Your task to perform on an android device: Add macbook pro 13 inch to the cart on newegg.com Image 0: 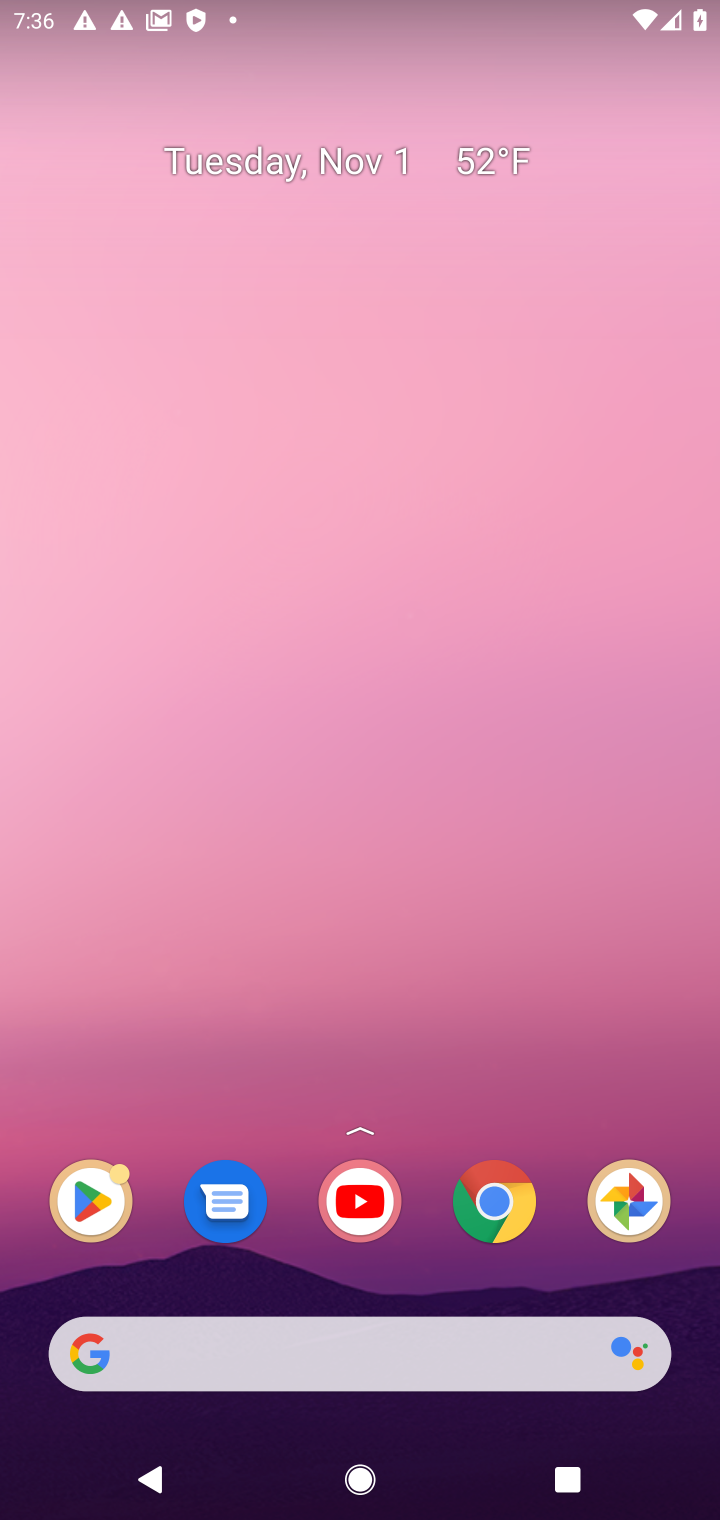
Step 0: click (348, 1363)
Your task to perform on an android device: Add macbook pro 13 inch to the cart on newegg.com Image 1: 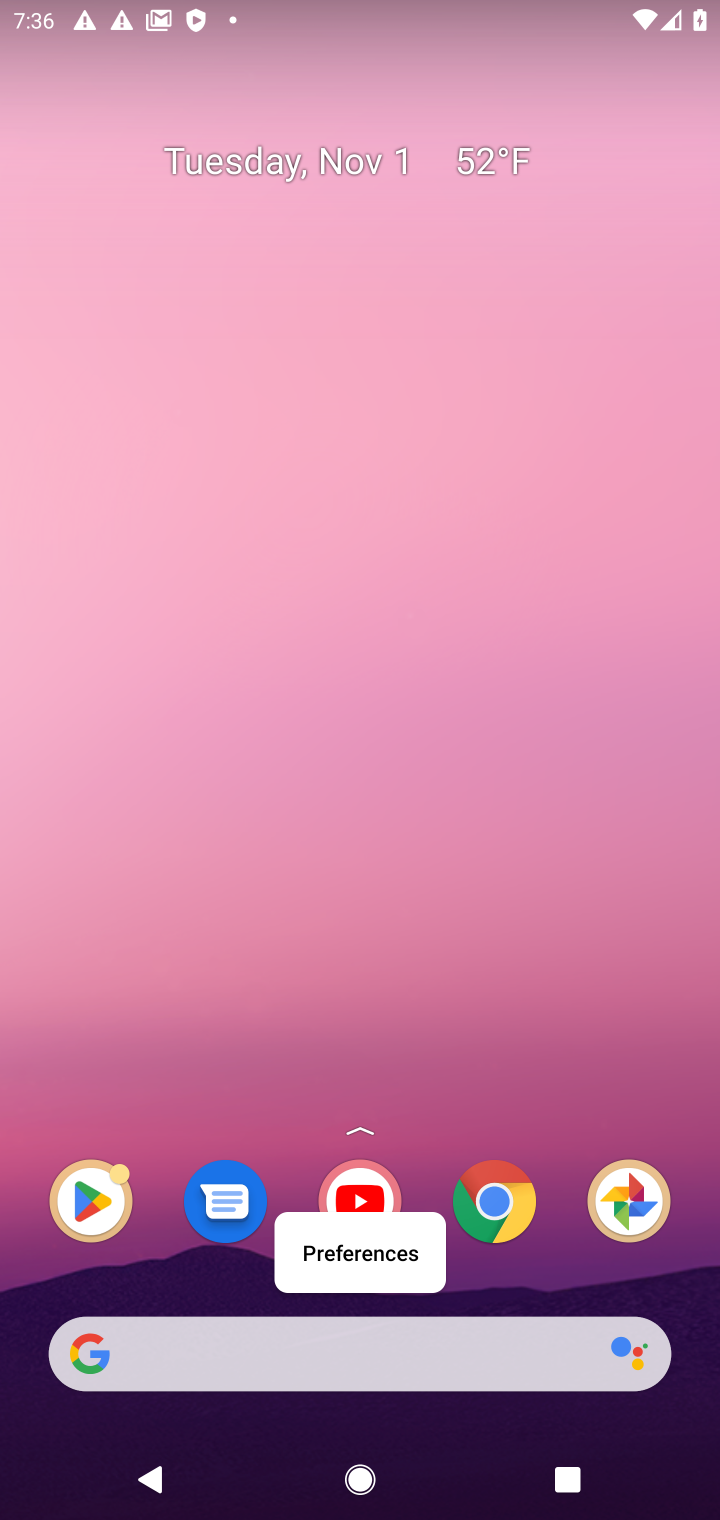
Step 1: click (498, 1233)
Your task to perform on an android device: Add macbook pro 13 inch to the cart on newegg.com Image 2: 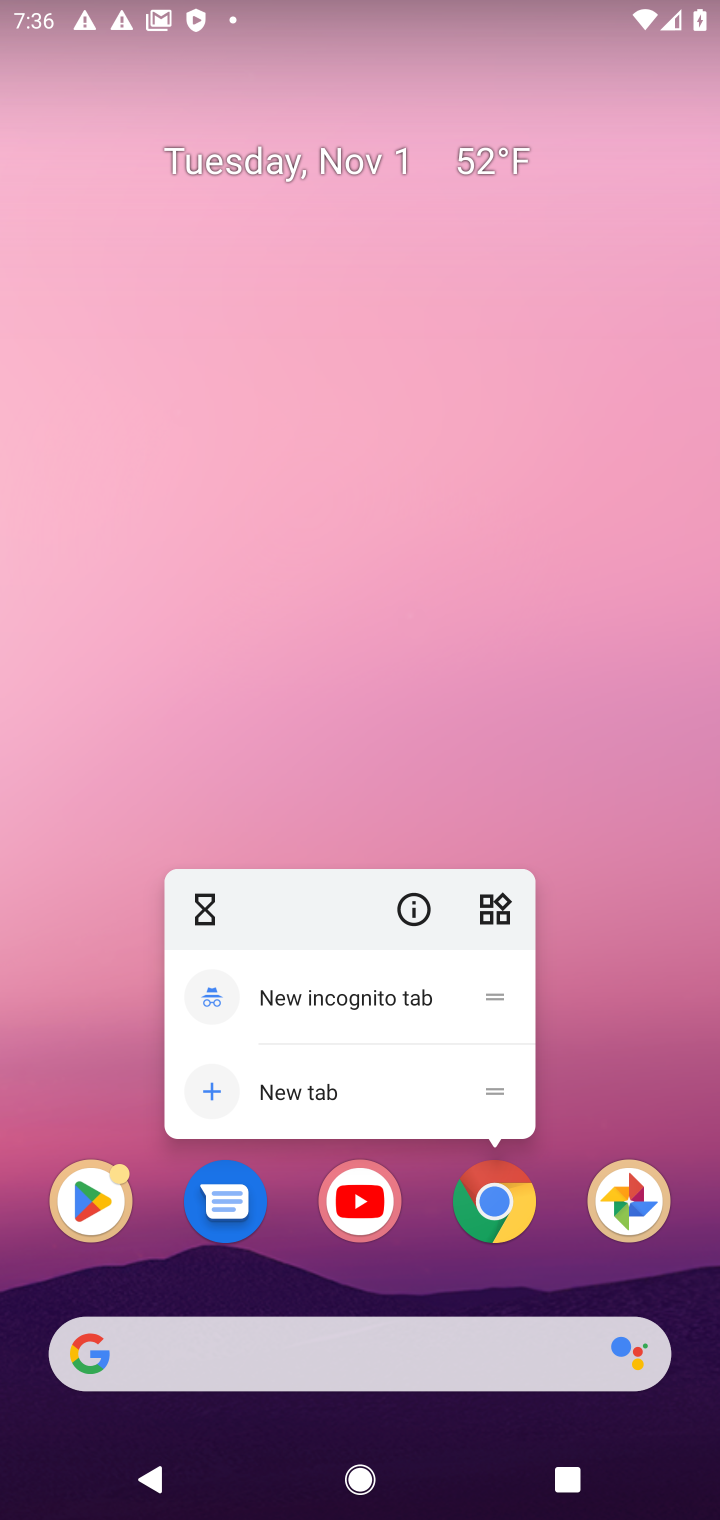
Step 2: click (474, 1187)
Your task to perform on an android device: Add macbook pro 13 inch to the cart on newegg.com Image 3: 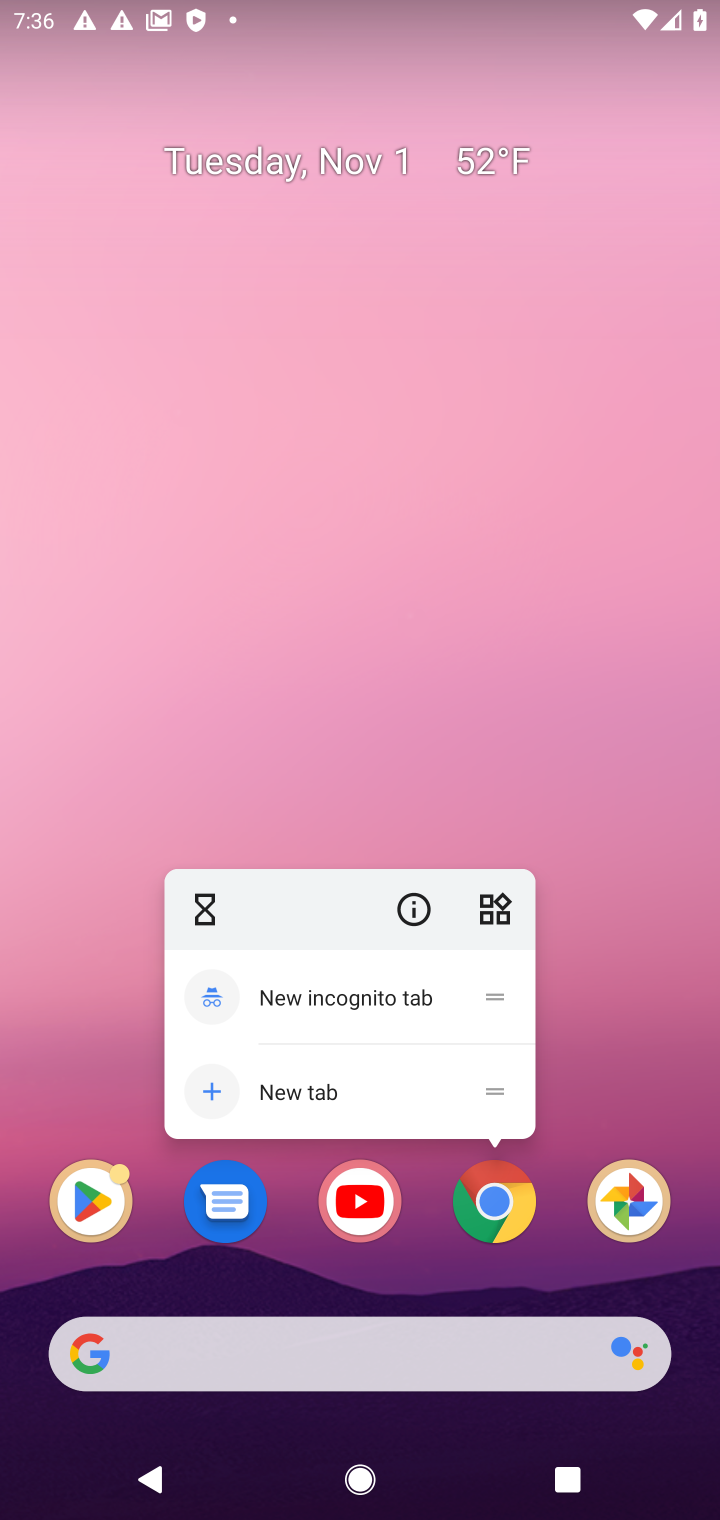
Step 3: click (477, 1194)
Your task to perform on an android device: Add macbook pro 13 inch to the cart on newegg.com Image 4: 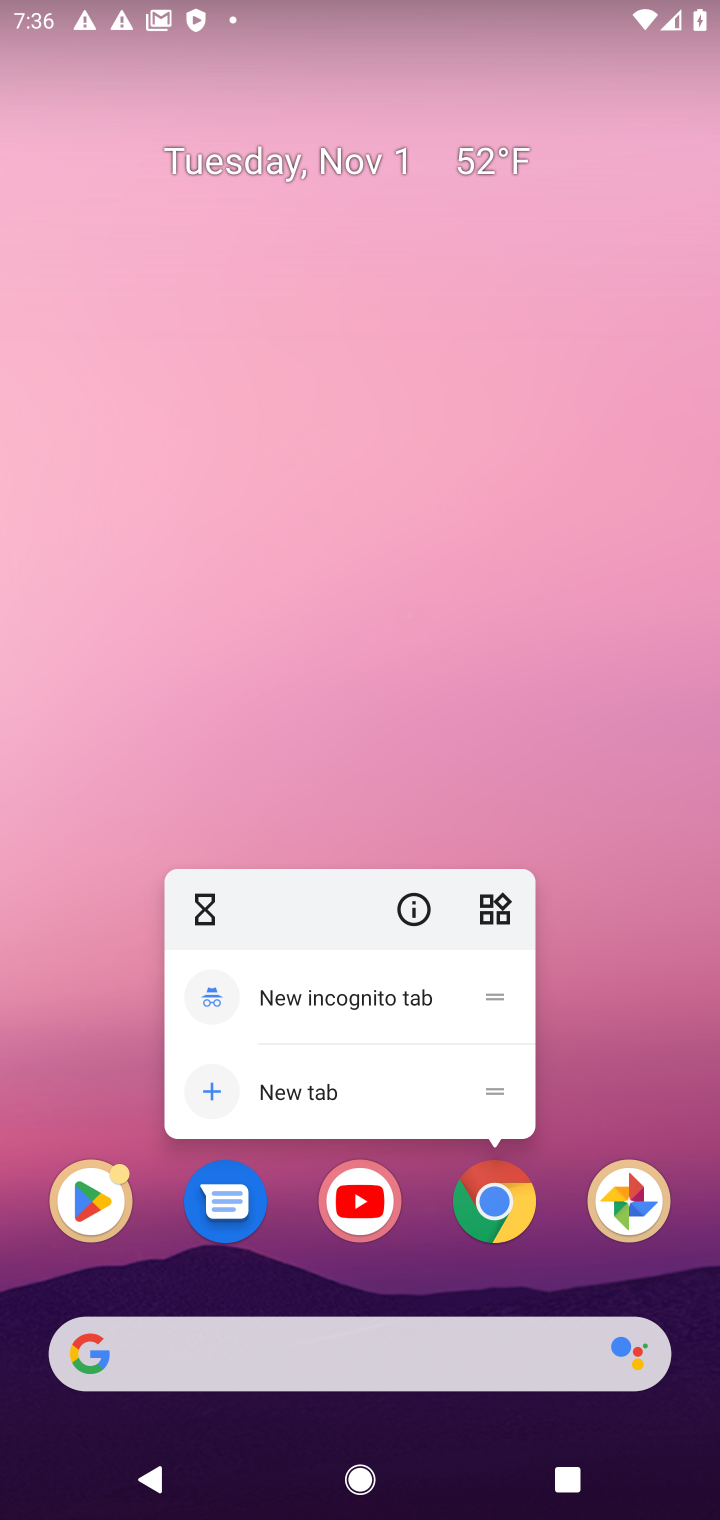
Step 4: click (399, 619)
Your task to perform on an android device: Add macbook pro 13 inch to the cart on newegg.com Image 5: 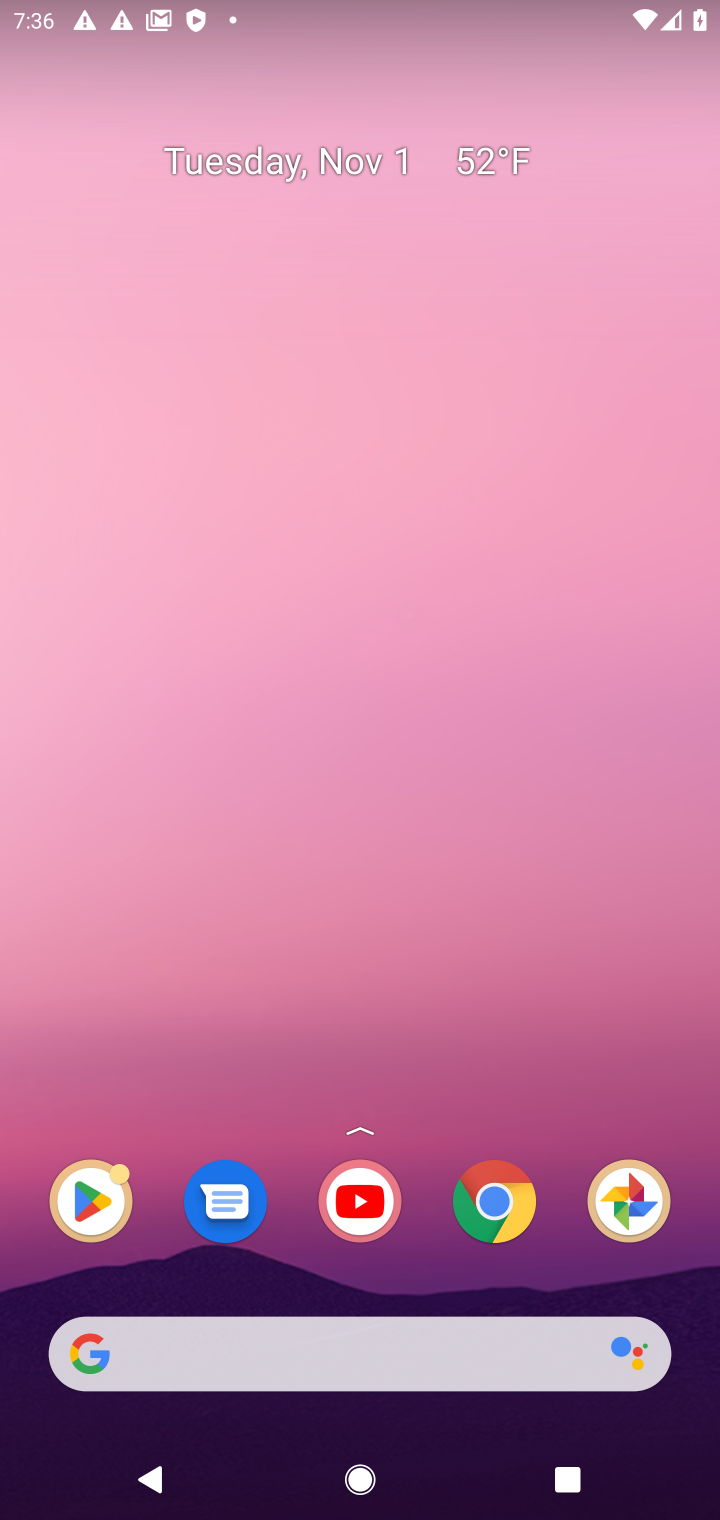
Step 5: click (504, 1206)
Your task to perform on an android device: Add macbook pro 13 inch to the cart on newegg.com Image 6: 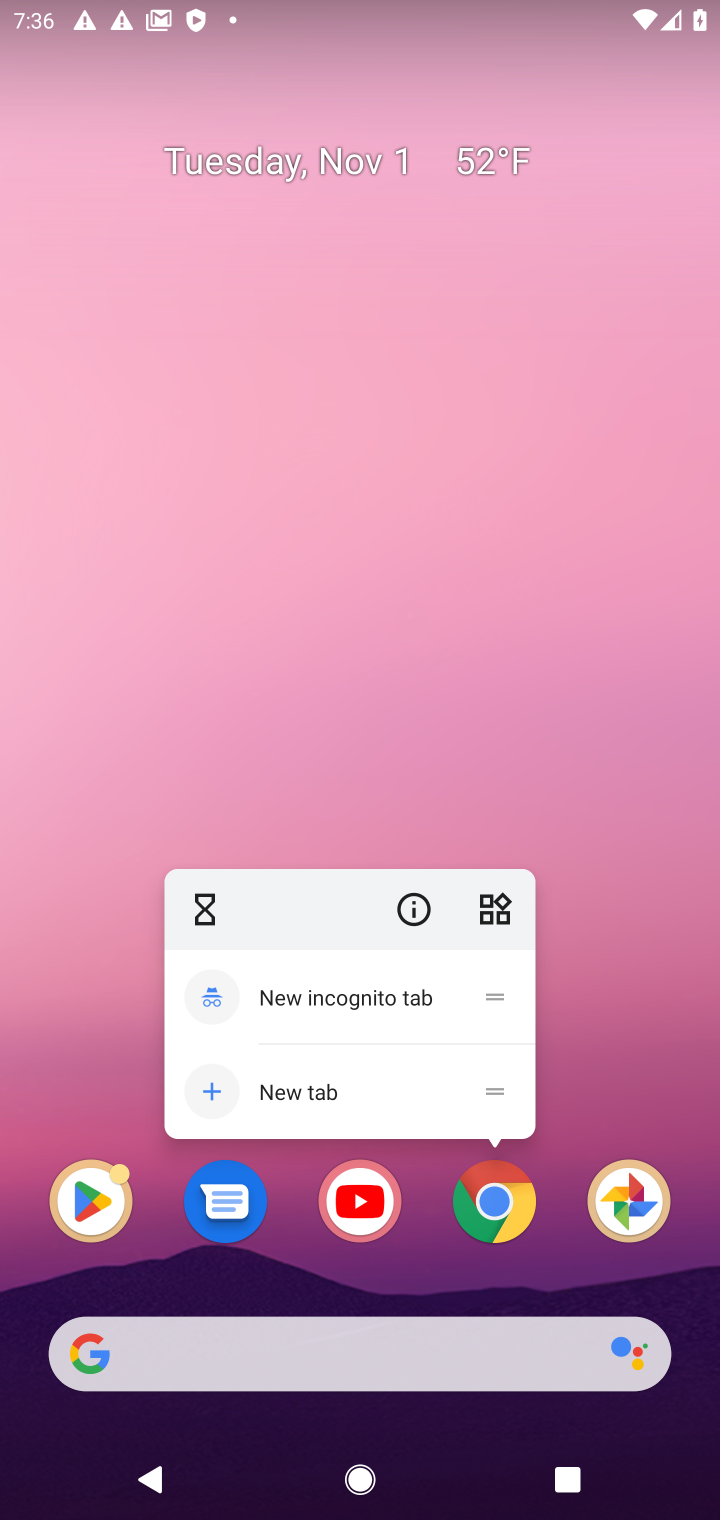
Step 6: click (495, 1188)
Your task to perform on an android device: Add macbook pro 13 inch to the cart on newegg.com Image 7: 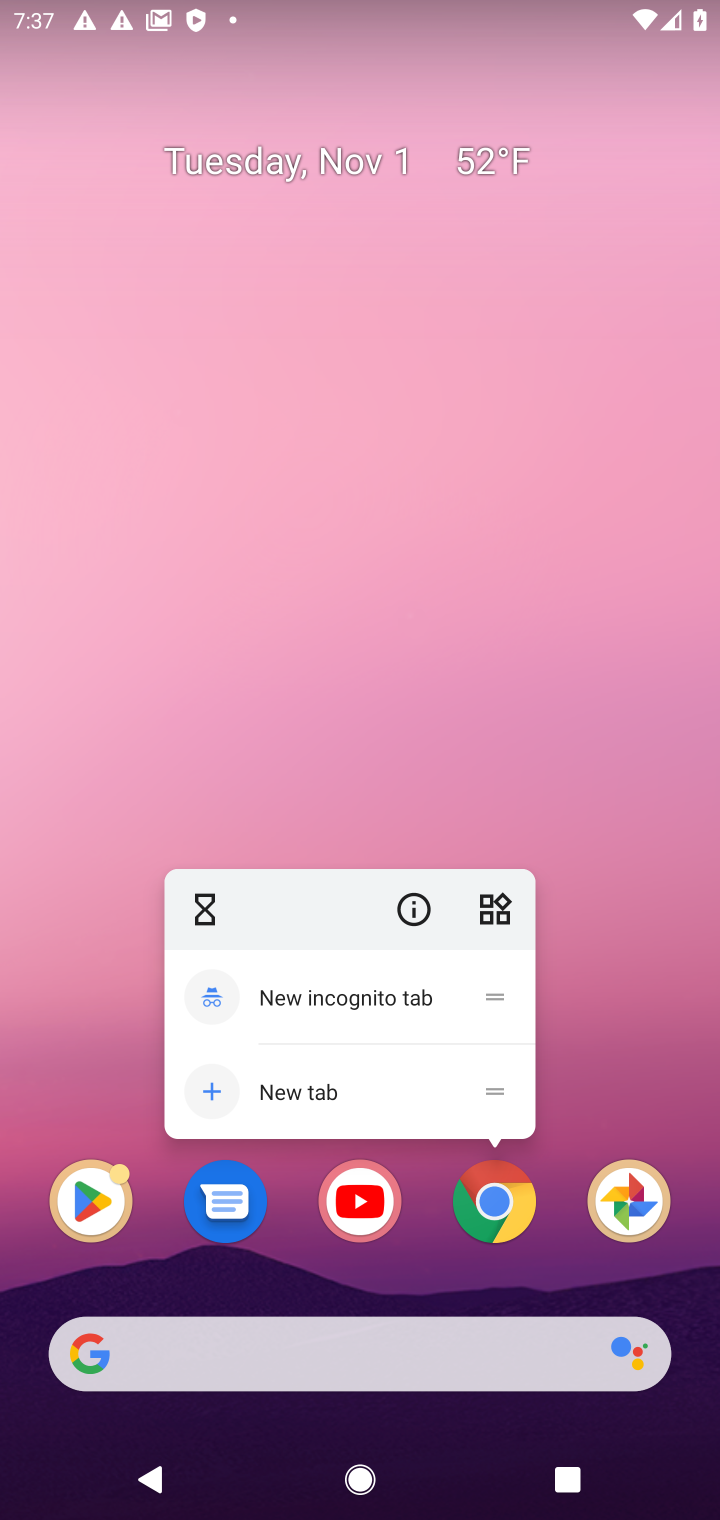
Step 7: click (493, 1190)
Your task to perform on an android device: Add macbook pro 13 inch to the cart on newegg.com Image 8: 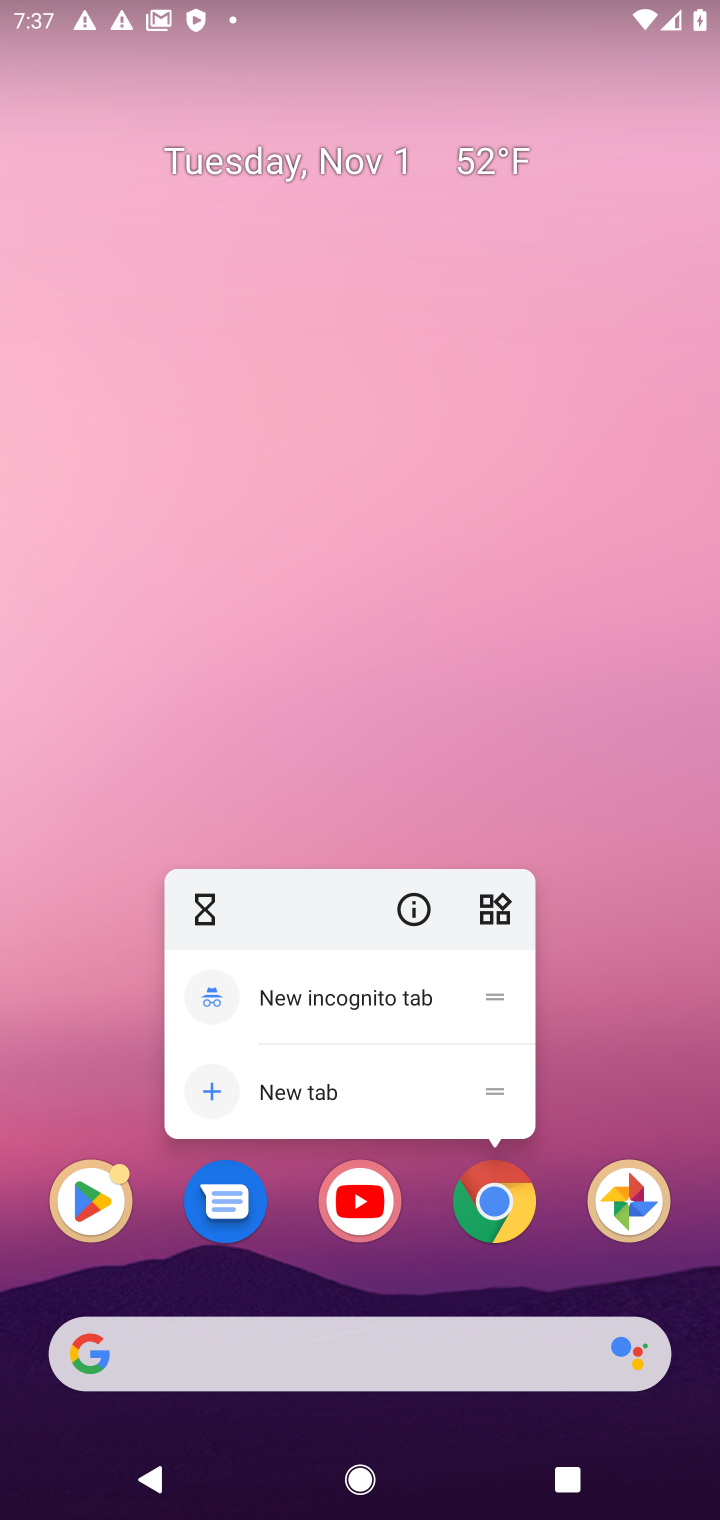
Step 8: click (493, 1190)
Your task to perform on an android device: Add macbook pro 13 inch to the cart on newegg.com Image 9: 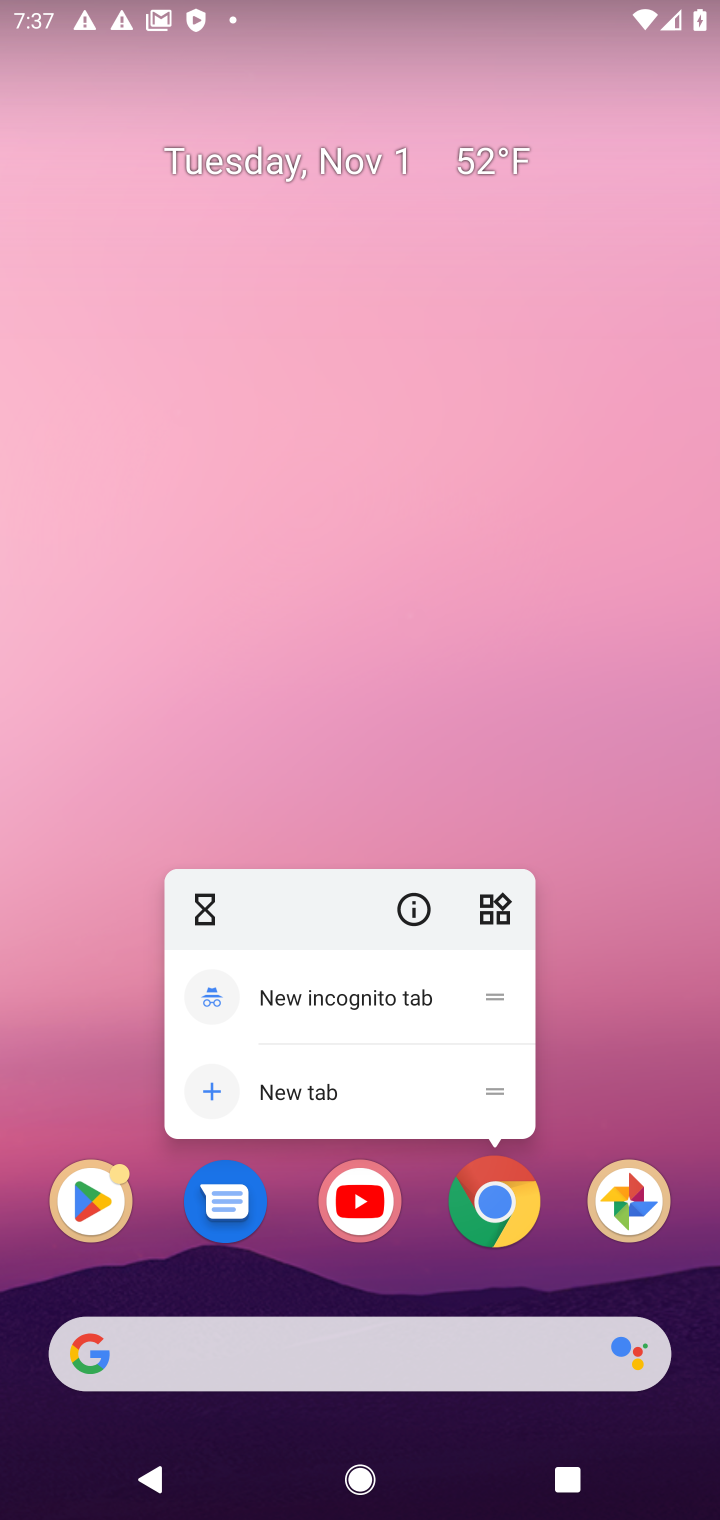
Step 9: click (405, 1344)
Your task to perform on an android device: Add macbook pro 13 inch to the cart on newegg.com Image 10: 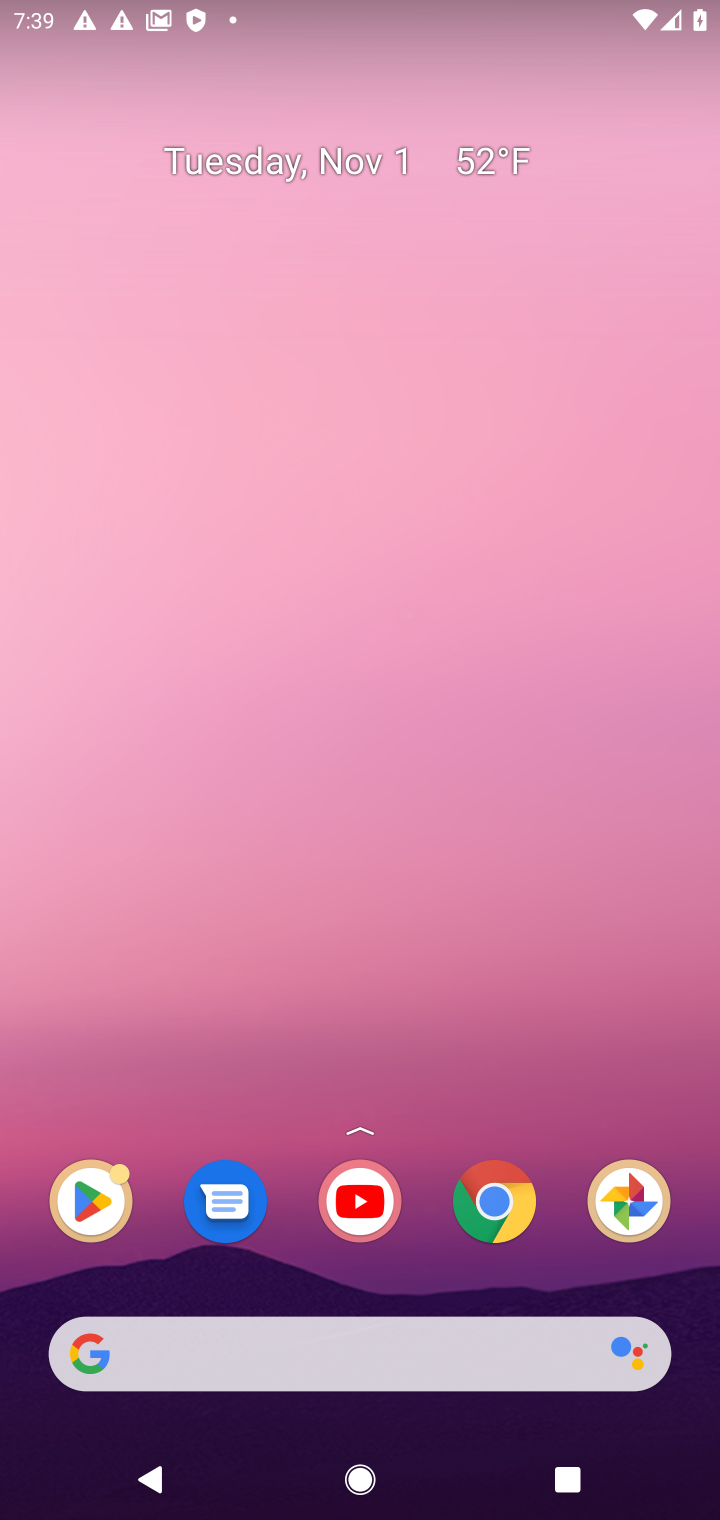
Step 10: click (405, 1340)
Your task to perform on an android device: Add macbook pro 13 inch to the cart on newegg.com Image 11: 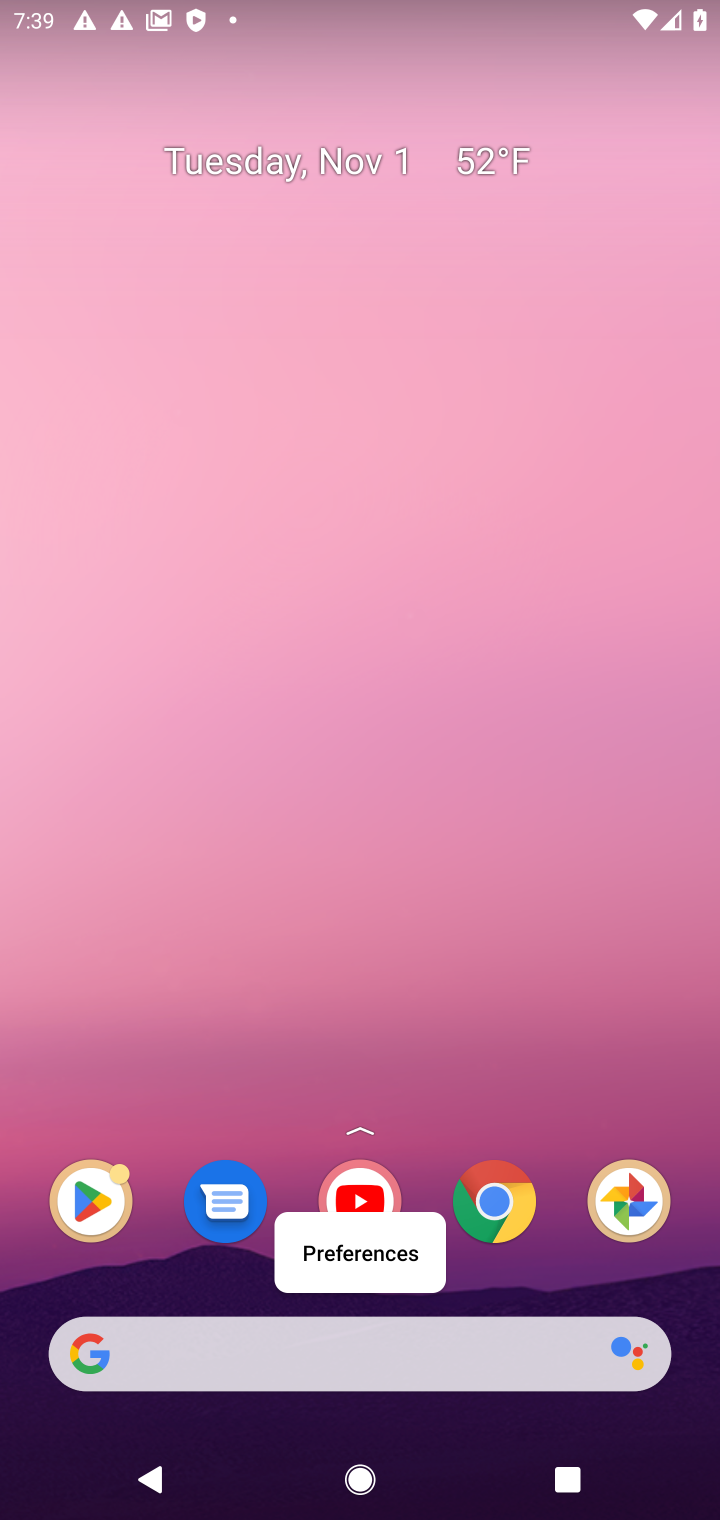
Step 11: click (502, 1188)
Your task to perform on an android device: Add macbook pro 13 inch to the cart on newegg.com Image 12: 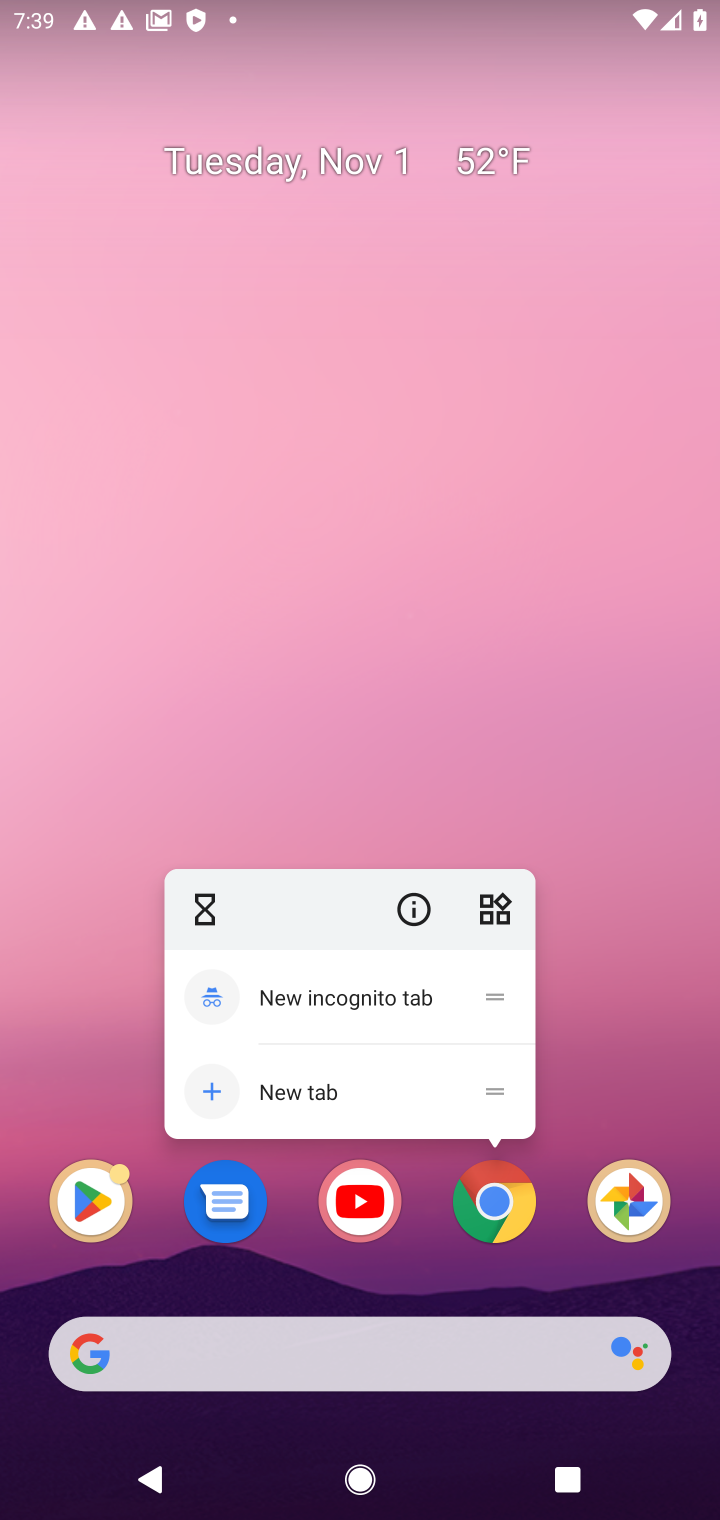
Step 12: click (502, 1199)
Your task to perform on an android device: Add macbook pro 13 inch to the cart on newegg.com Image 13: 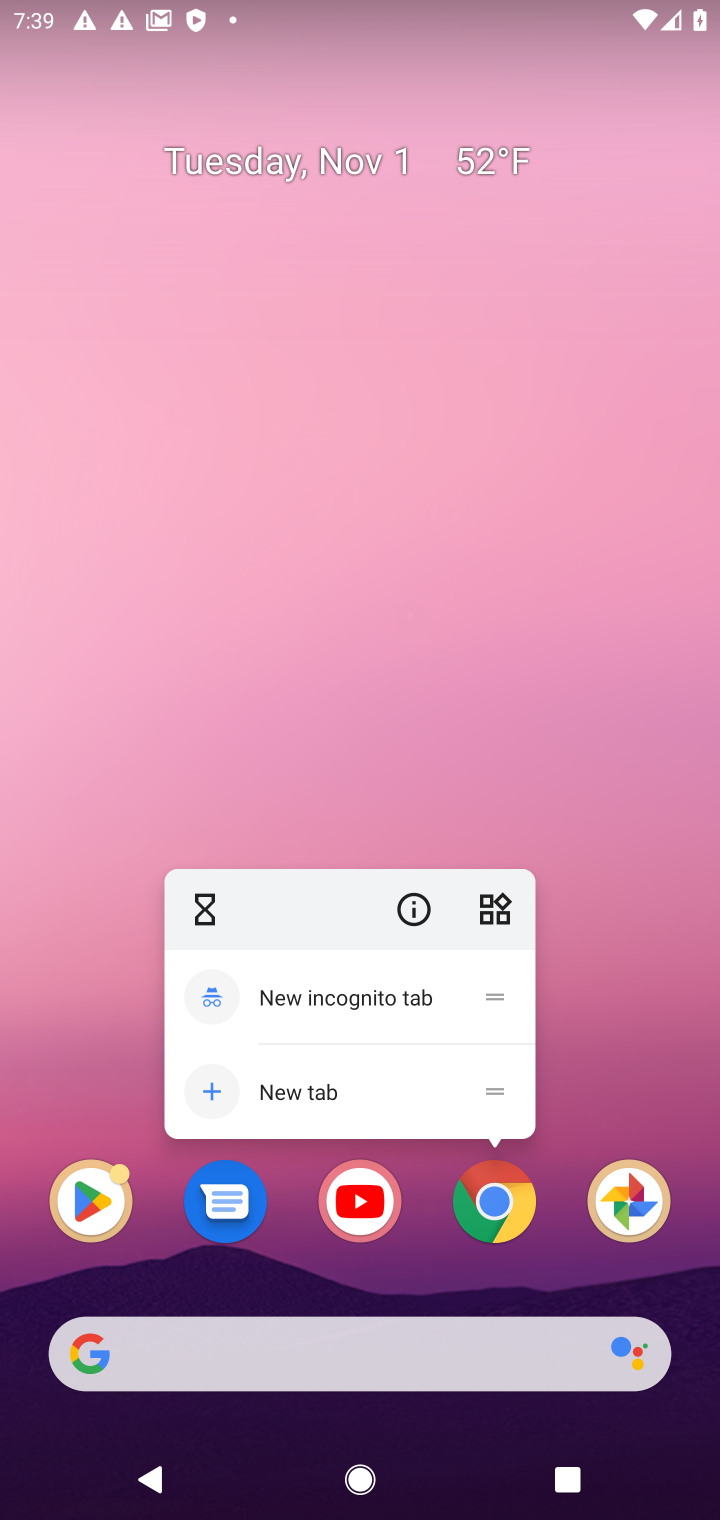
Step 13: click (502, 1199)
Your task to perform on an android device: Add macbook pro 13 inch to the cart on newegg.com Image 14: 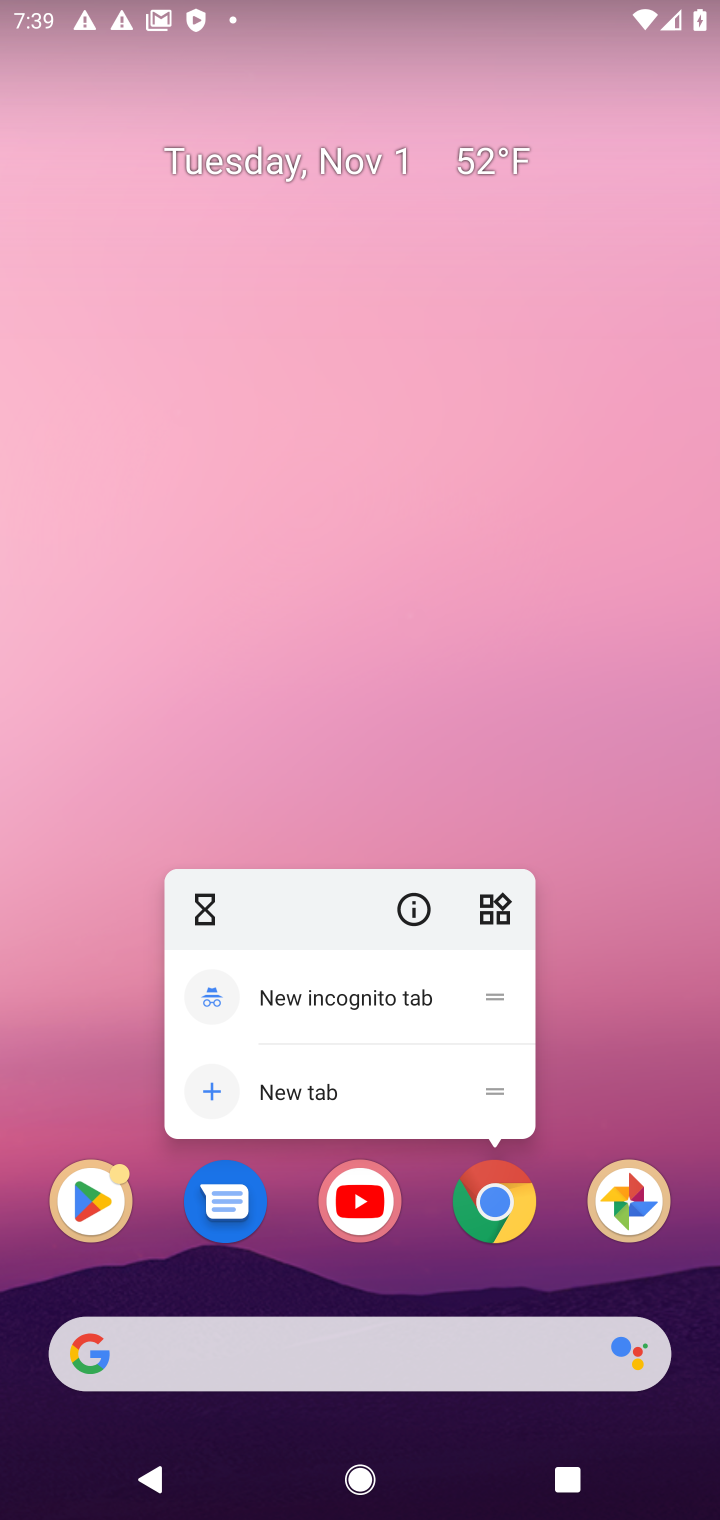
Step 14: click (502, 1201)
Your task to perform on an android device: Add macbook pro 13 inch to the cart on newegg.com Image 15: 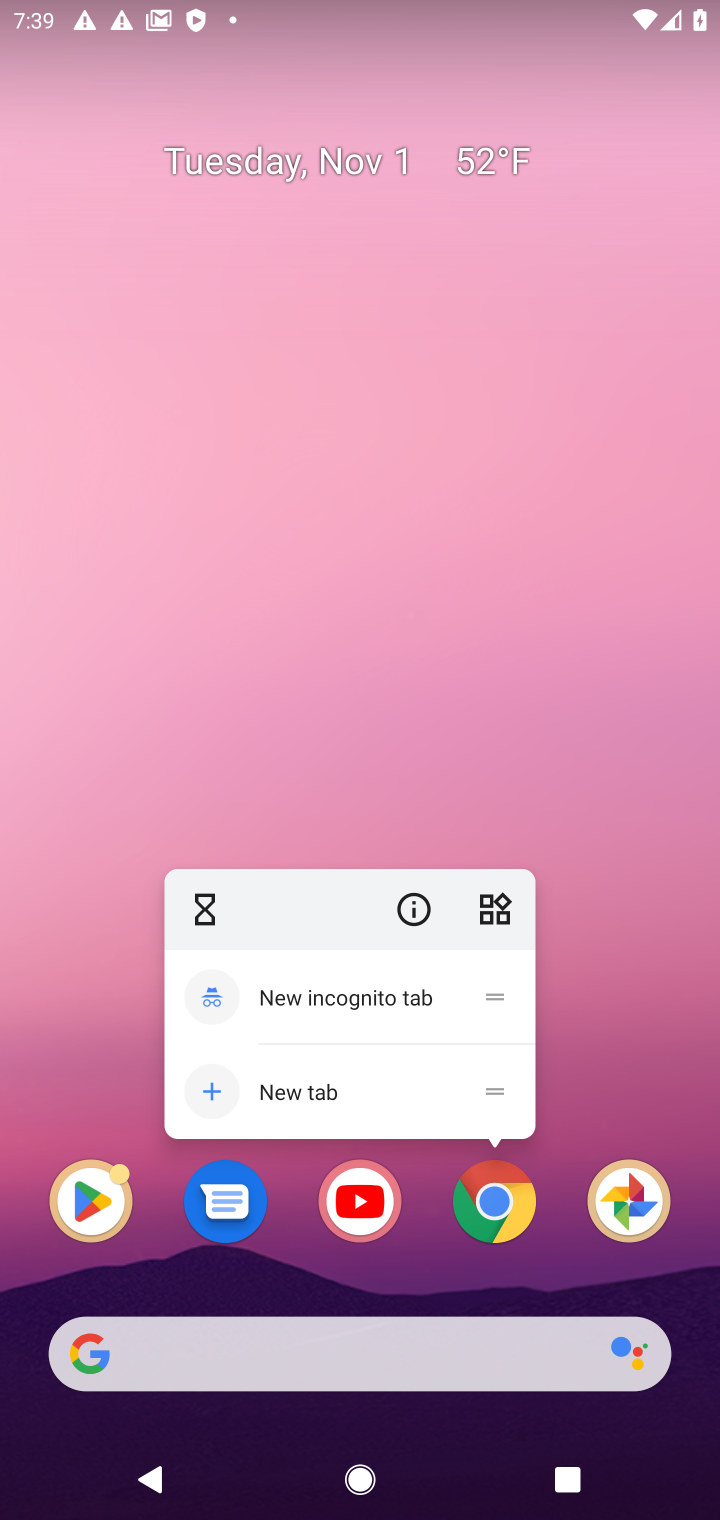
Step 15: click (502, 1201)
Your task to perform on an android device: Add macbook pro 13 inch to the cart on newegg.com Image 16: 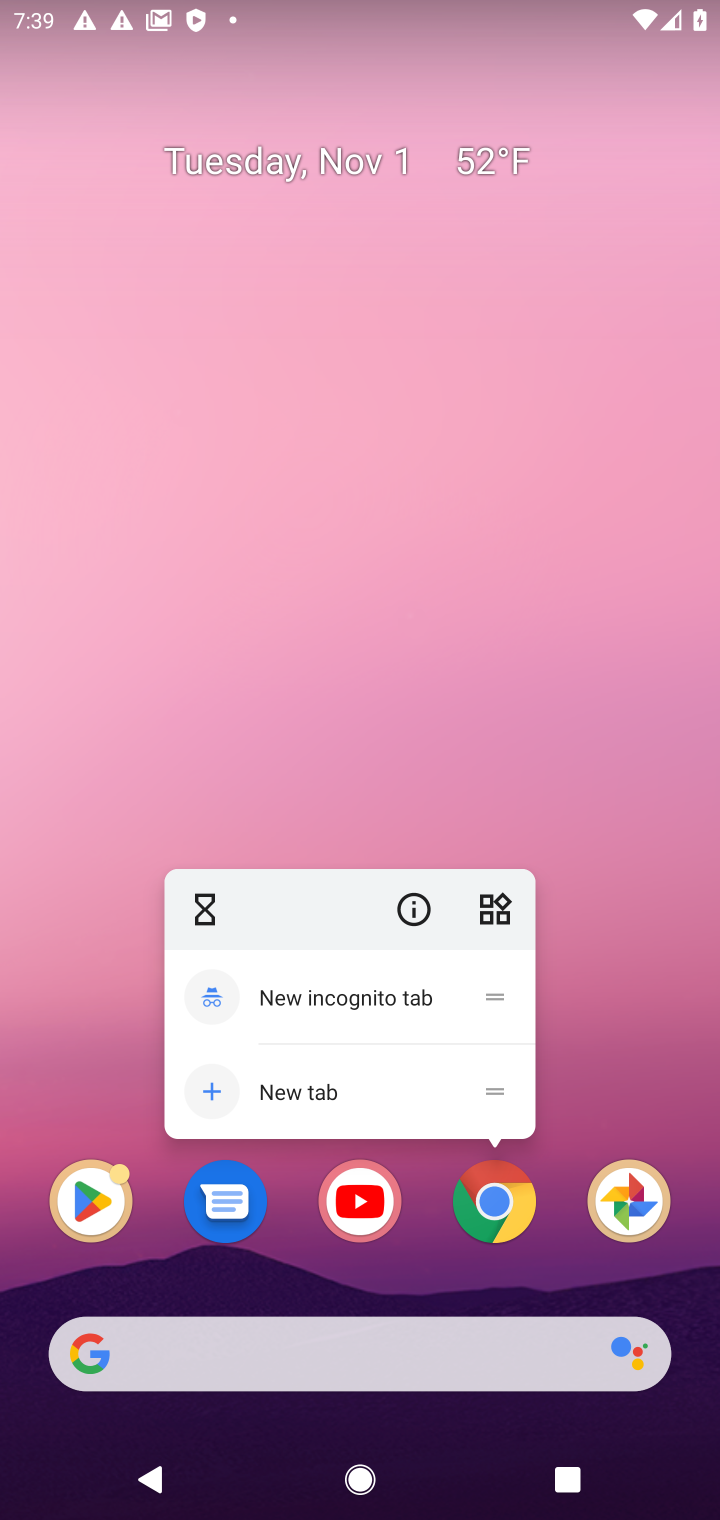
Step 16: task complete